Your task to perform on an android device: Open internet settings Image 0: 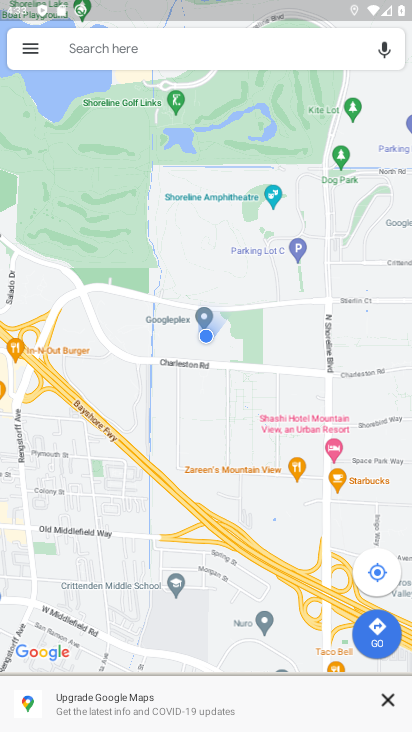
Step 0: press back button
Your task to perform on an android device: Open internet settings Image 1: 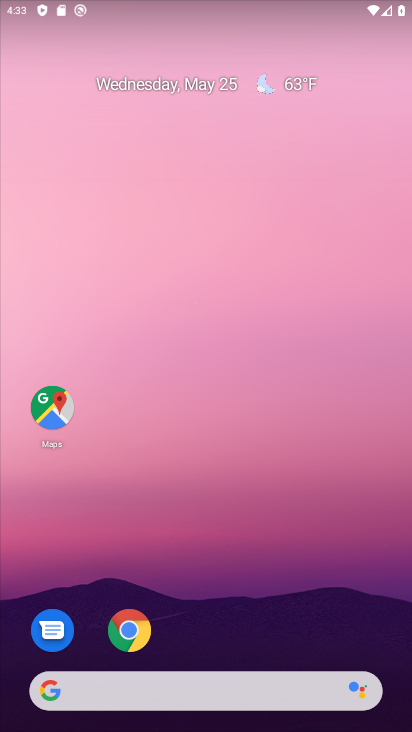
Step 1: drag from (193, 576) to (242, 87)
Your task to perform on an android device: Open internet settings Image 2: 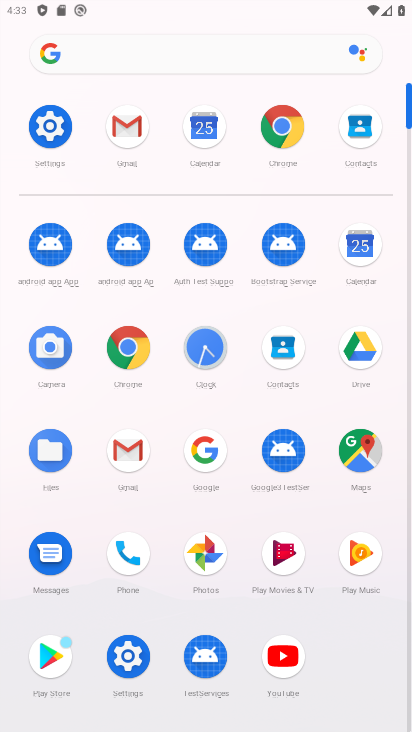
Step 2: click (52, 130)
Your task to perform on an android device: Open internet settings Image 3: 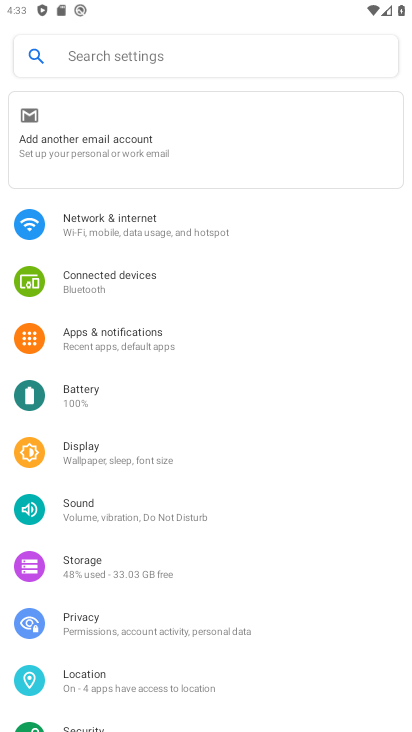
Step 3: click (142, 220)
Your task to perform on an android device: Open internet settings Image 4: 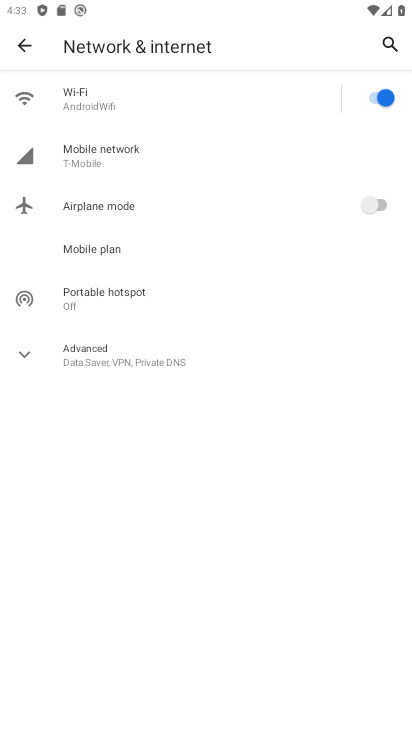
Step 4: task complete